Your task to perform on an android device: open app "Firefox Browser" Image 0: 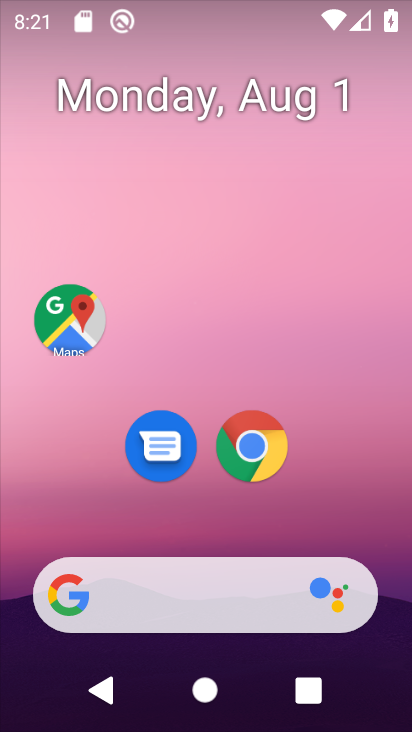
Step 0: drag from (202, 521) to (231, 99)
Your task to perform on an android device: open app "Firefox Browser" Image 1: 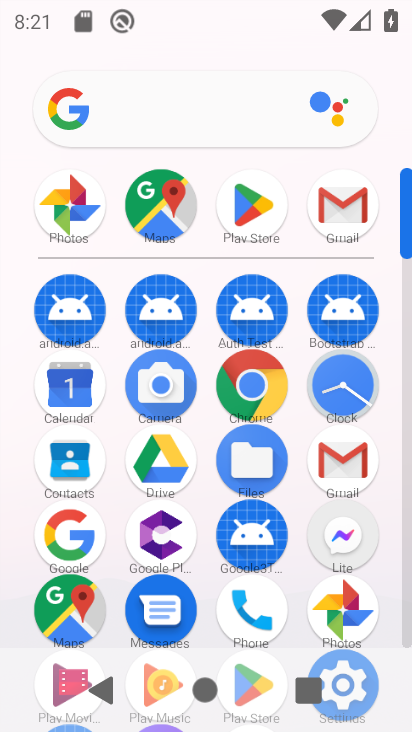
Step 1: click (263, 189)
Your task to perform on an android device: open app "Firefox Browser" Image 2: 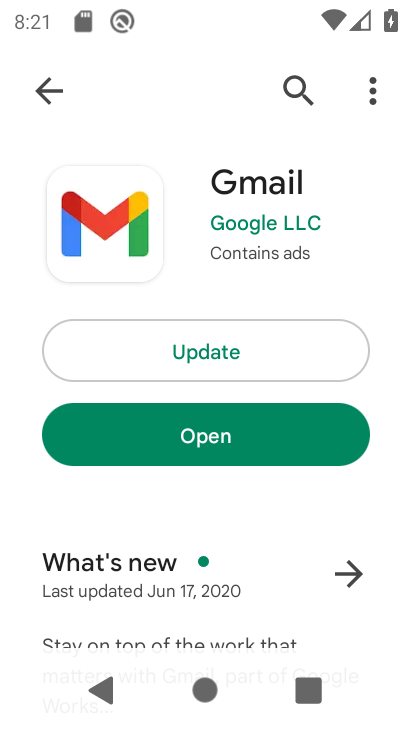
Step 2: click (300, 82)
Your task to perform on an android device: open app "Firefox Browser" Image 3: 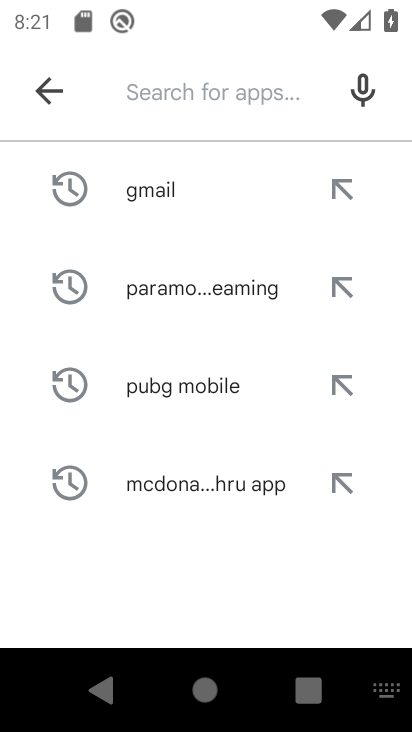
Step 3: type "Firefox Browser"
Your task to perform on an android device: open app "Firefox Browser" Image 4: 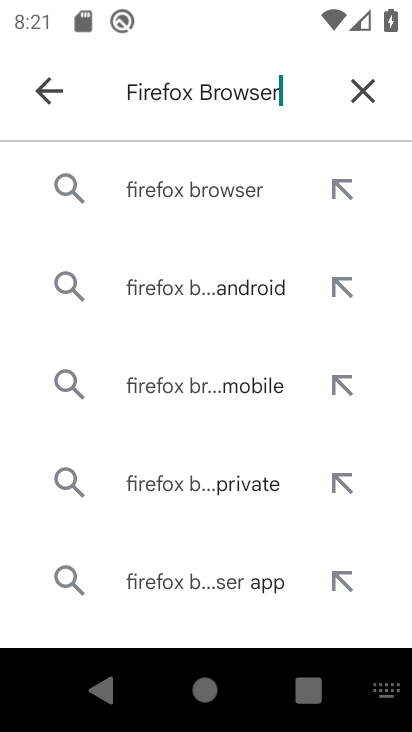
Step 4: type ""
Your task to perform on an android device: open app "Firefox Browser" Image 5: 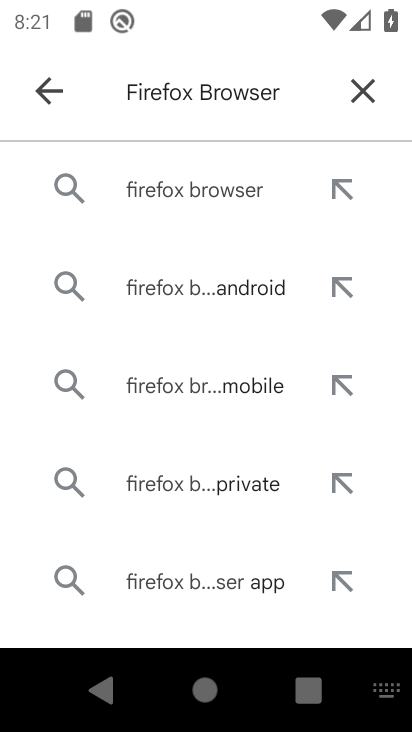
Step 5: click (173, 190)
Your task to perform on an android device: open app "Firefox Browser" Image 6: 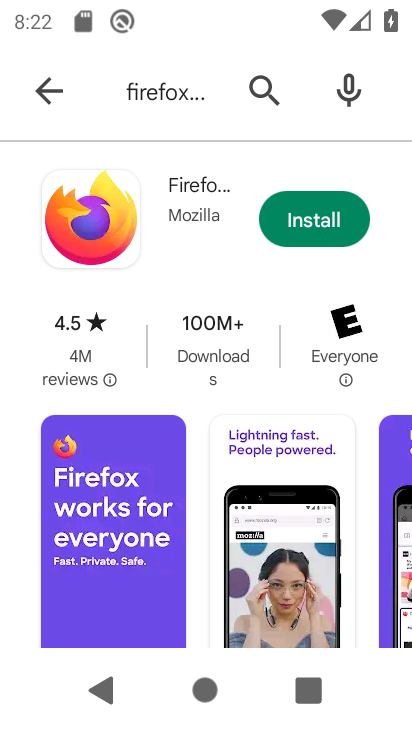
Step 6: task complete